Your task to perform on an android device: Set the phone to "Do not disturb". Image 0: 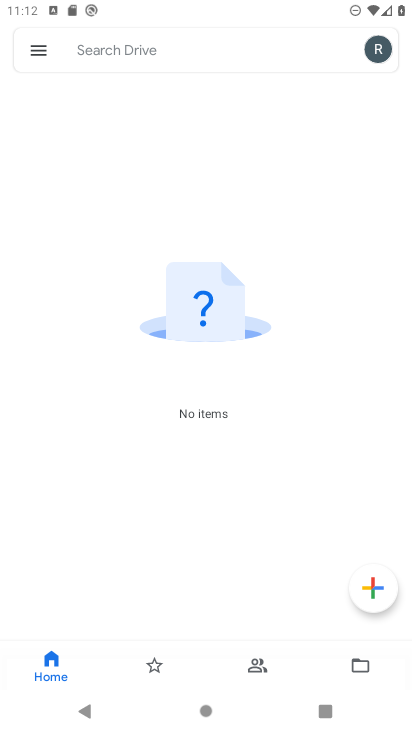
Step 0: press home button
Your task to perform on an android device: Set the phone to "Do not disturb". Image 1: 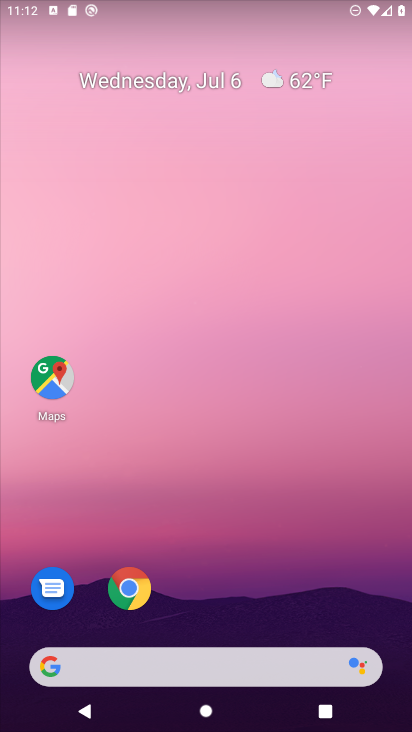
Step 1: drag from (350, 602) to (284, 150)
Your task to perform on an android device: Set the phone to "Do not disturb". Image 2: 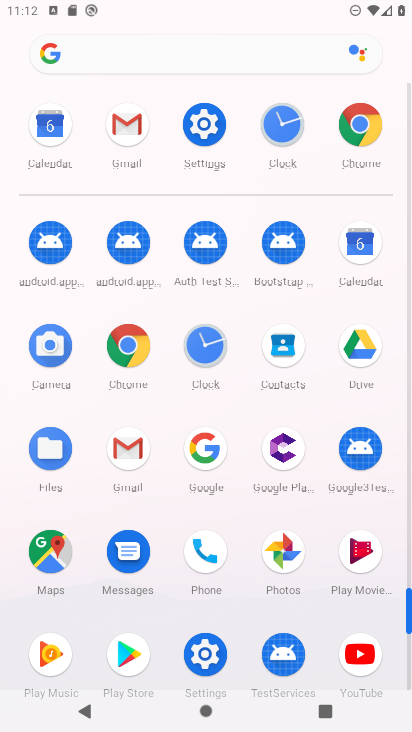
Step 2: click (203, 654)
Your task to perform on an android device: Set the phone to "Do not disturb". Image 3: 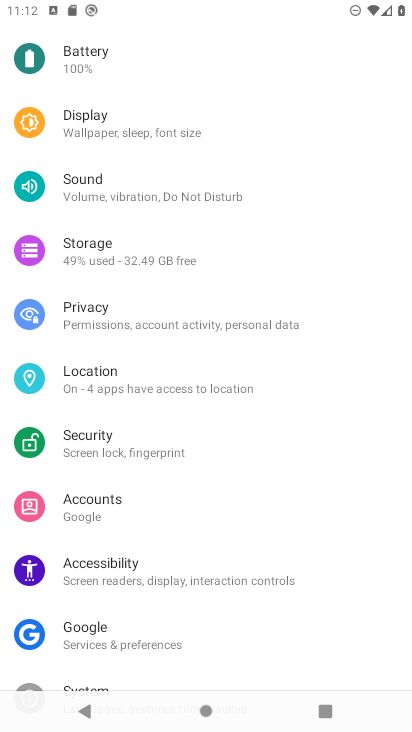
Step 3: click (107, 188)
Your task to perform on an android device: Set the phone to "Do not disturb". Image 4: 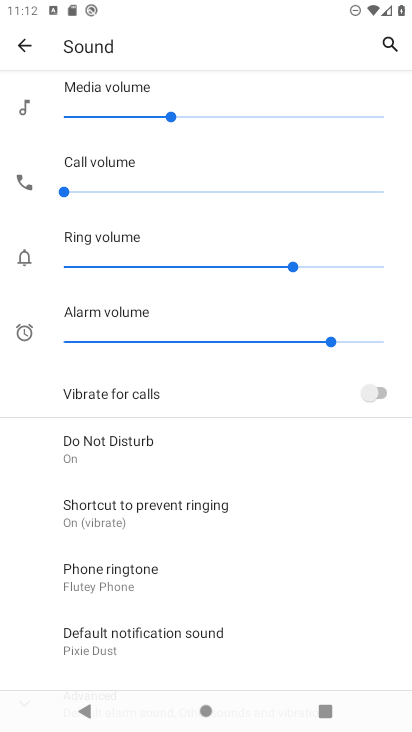
Step 4: click (86, 446)
Your task to perform on an android device: Set the phone to "Do not disturb". Image 5: 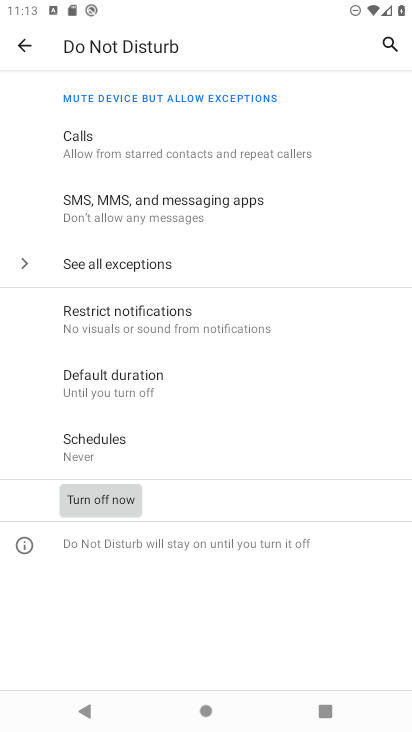
Step 5: task complete